Your task to perform on an android device: delete a single message in the gmail app Image 0: 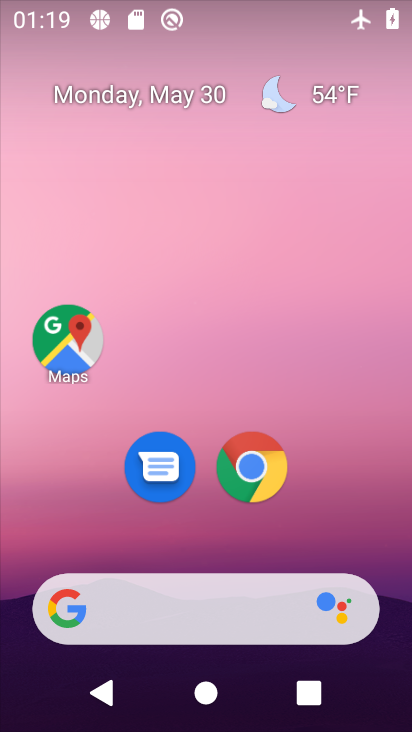
Step 0: drag from (181, 554) to (363, 699)
Your task to perform on an android device: delete a single message in the gmail app Image 1: 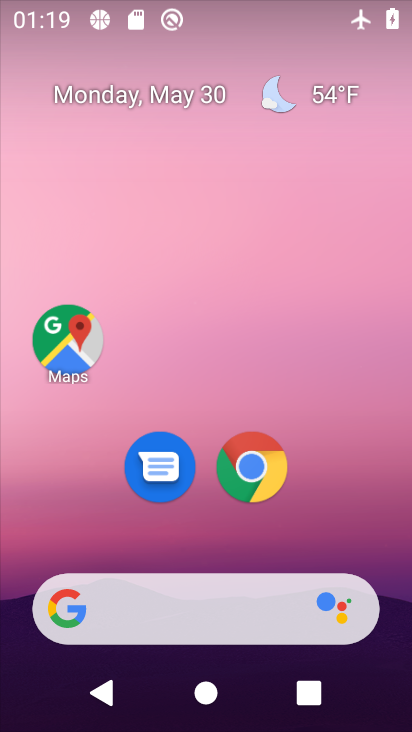
Step 1: click (359, 505)
Your task to perform on an android device: delete a single message in the gmail app Image 2: 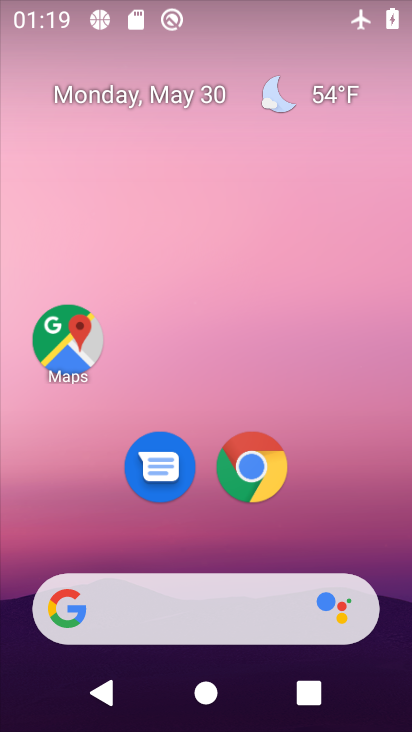
Step 2: drag from (310, 554) to (238, 45)
Your task to perform on an android device: delete a single message in the gmail app Image 3: 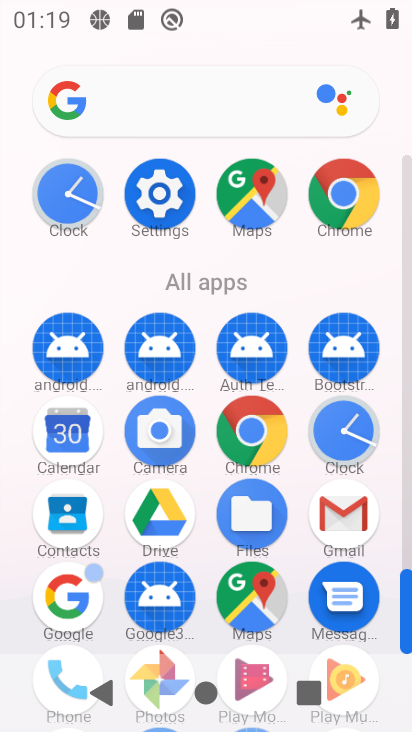
Step 3: click (336, 513)
Your task to perform on an android device: delete a single message in the gmail app Image 4: 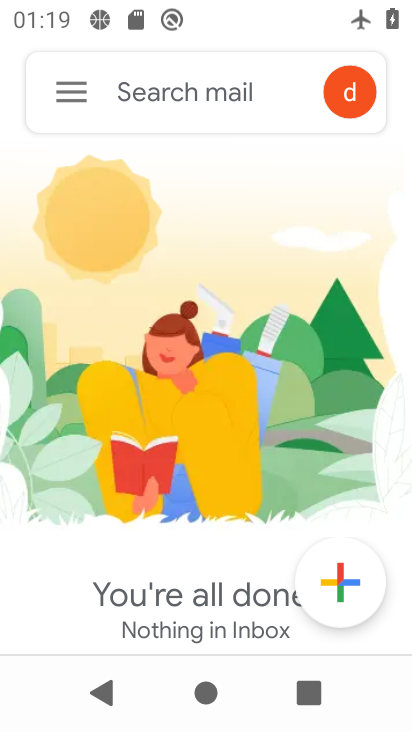
Step 4: task complete